Your task to perform on an android device: turn off location history Image 0: 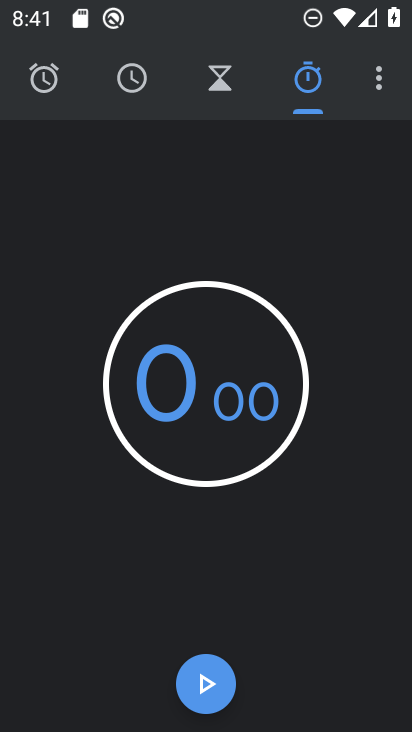
Step 0: press back button
Your task to perform on an android device: turn off location history Image 1: 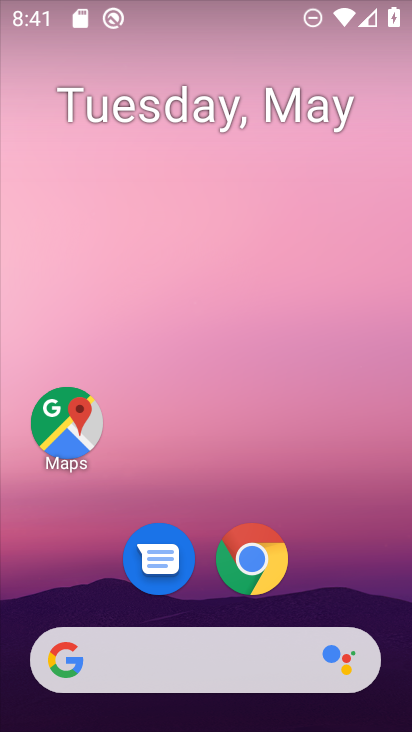
Step 1: drag from (215, 518) to (277, 15)
Your task to perform on an android device: turn off location history Image 2: 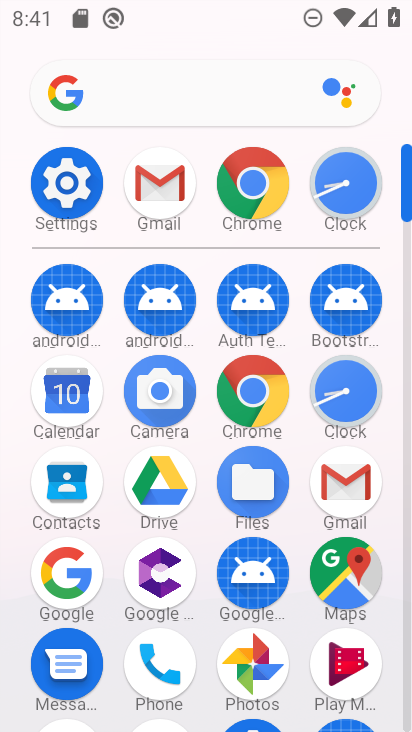
Step 2: click (75, 170)
Your task to perform on an android device: turn off location history Image 3: 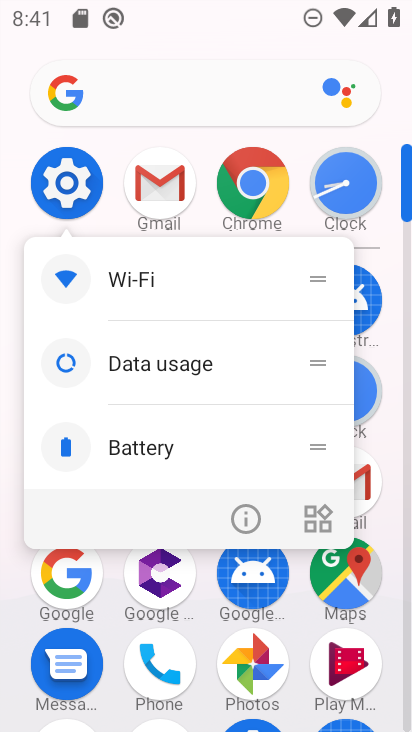
Step 3: click (83, 181)
Your task to perform on an android device: turn off location history Image 4: 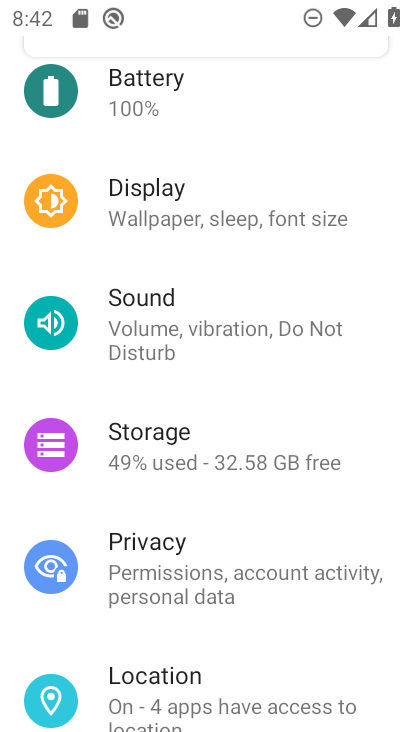
Step 4: drag from (256, 227) to (324, 125)
Your task to perform on an android device: turn off location history Image 5: 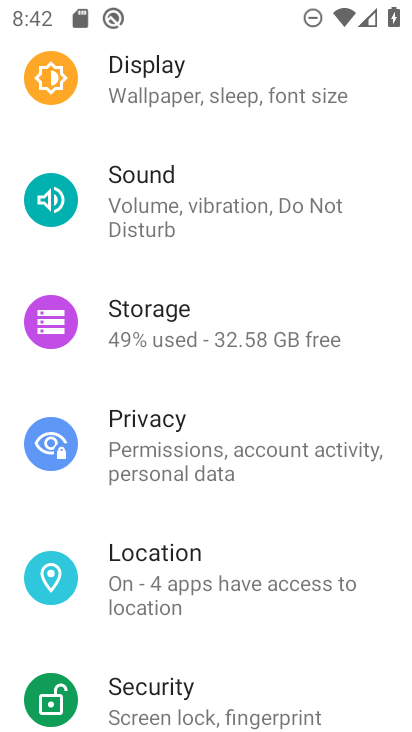
Step 5: click (184, 565)
Your task to perform on an android device: turn off location history Image 6: 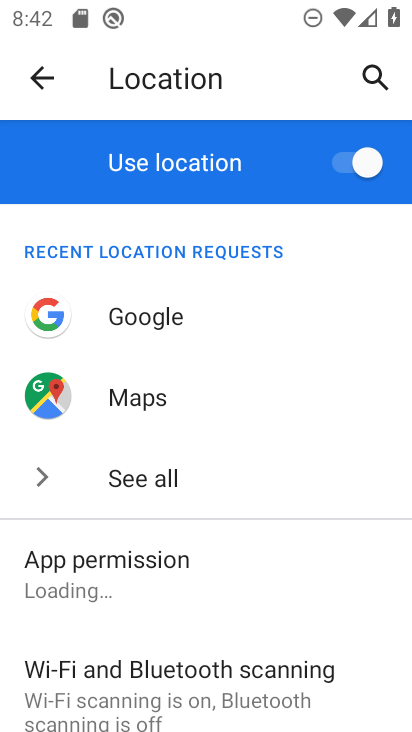
Step 6: drag from (169, 647) to (240, 207)
Your task to perform on an android device: turn off location history Image 7: 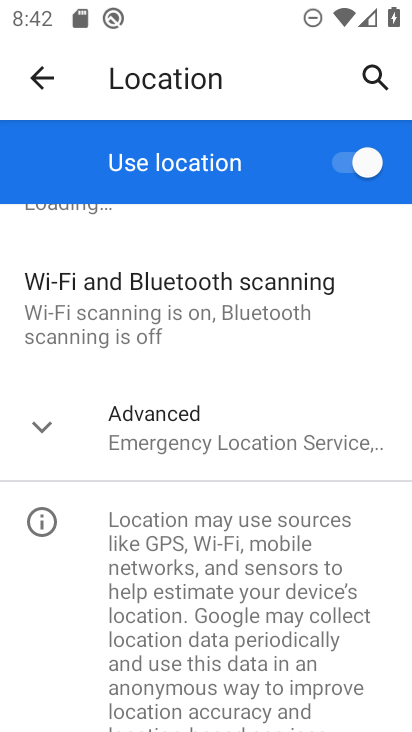
Step 7: click (183, 432)
Your task to perform on an android device: turn off location history Image 8: 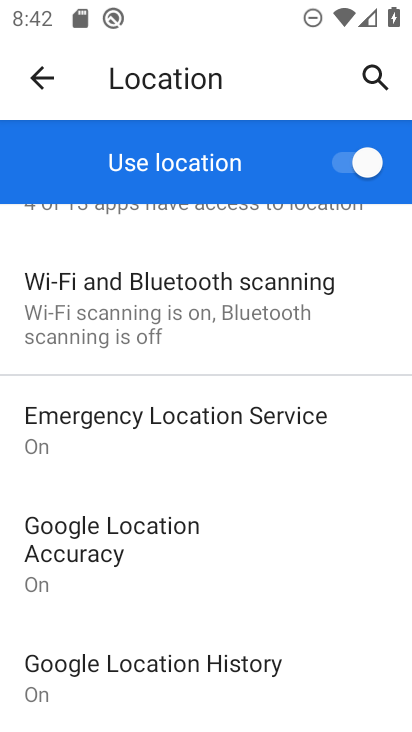
Step 8: click (164, 671)
Your task to perform on an android device: turn off location history Image 9: 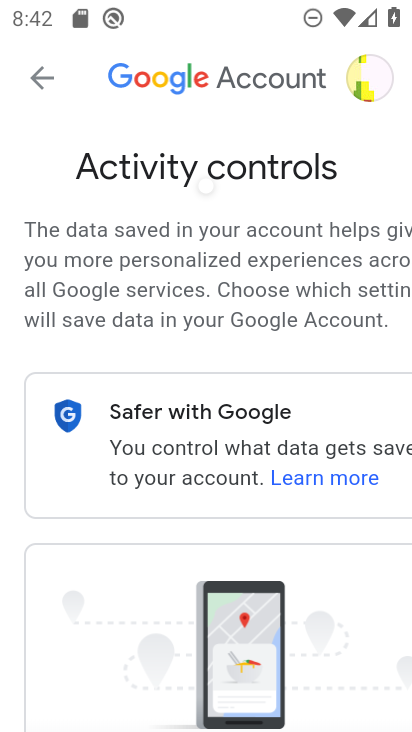
Step 9: drag from (230, 599) to (258, 144)
Your task to perform on an android device: turn off location history Image 10: 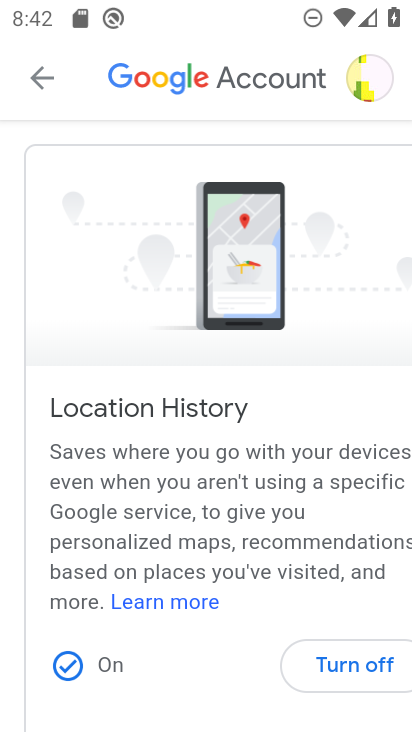
Step 10: click (336, 664)
Your task to perform on an android device: turn off location history Image 11: 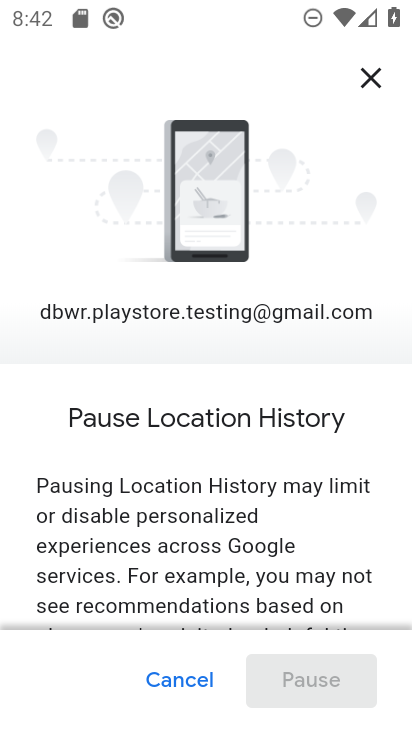
Step 11: drag from (217, 587) to (343, 78)
Your task to perform on an android device: turn off location history Image 12: 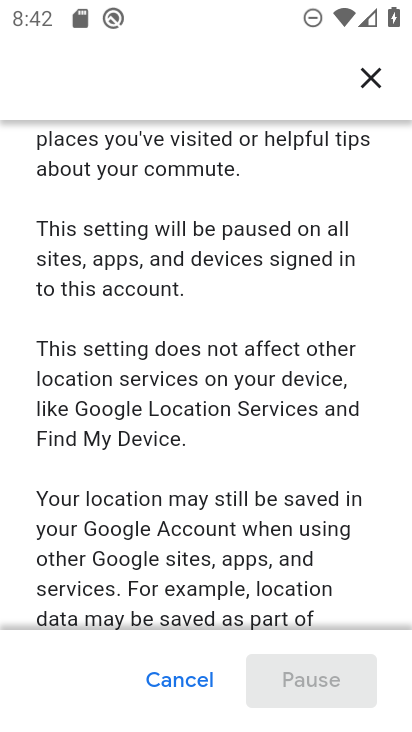
Step 12: drag from (218, 580) to (321, 158)
Your task to perform on an android device: turn off location history Image 13: 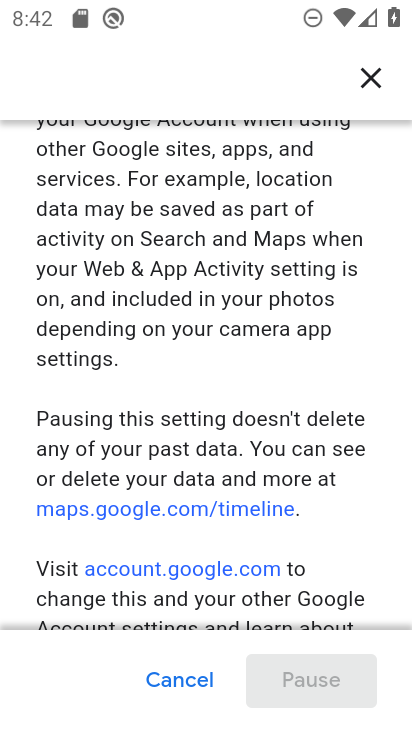
Step 13: drag from (221, 566) to (292, 86)
Your task to perform on an android device: turn off location history Image 14: 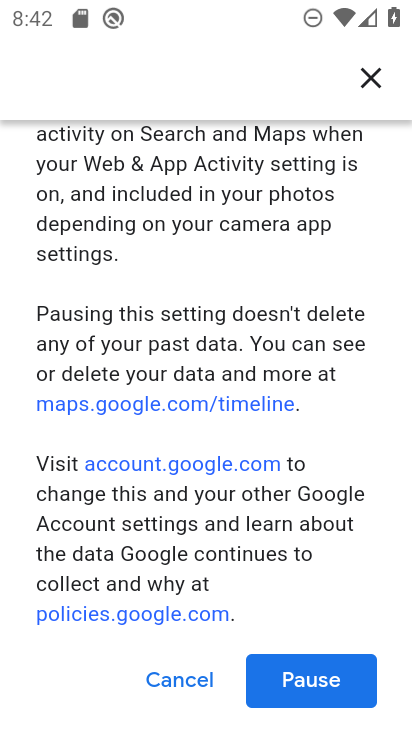
Step 14: click (310, 679)
Your task to perform on an android device: turn off location history Image 15: 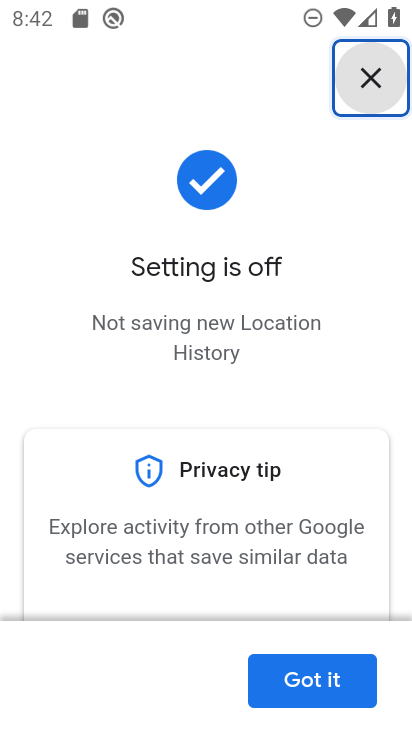
Step 15: task complete